Your task to perform on an android device: turn on improve location accuracy Image 0: 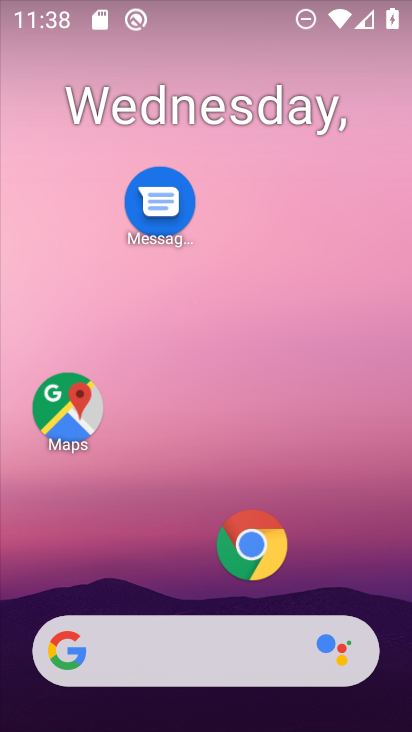
Step 0: drag from (195, 578) to (198, 237)
Your task to perform on an android device: turn on improve location accuracy Image 1: 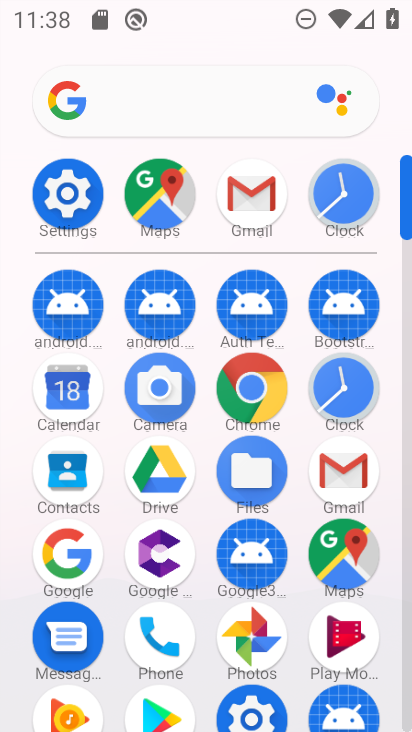
Step 1: click (86, 200)
Your task to perform on an android device: turn on improve location accuracy Image 2: 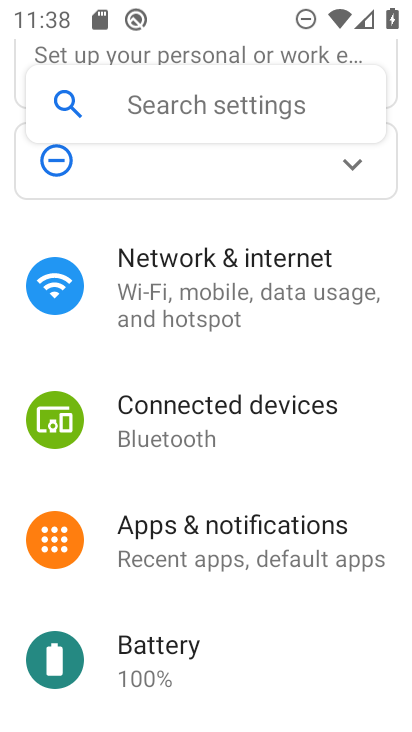
Step 2: drag from (246, 605) to (232, 361)
Your task to perform on an android device: turn on improve location accuracy Image 3: 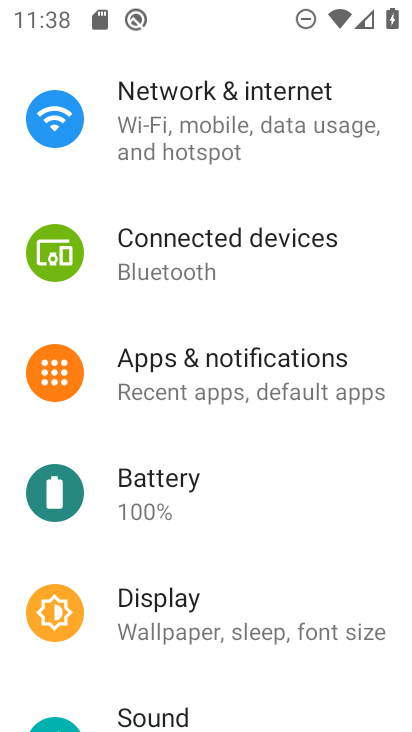
Step 3: drag from (226, 632) to (233, 472)
Your task to perform on an android device: turn on improve location accuracy Image 4: 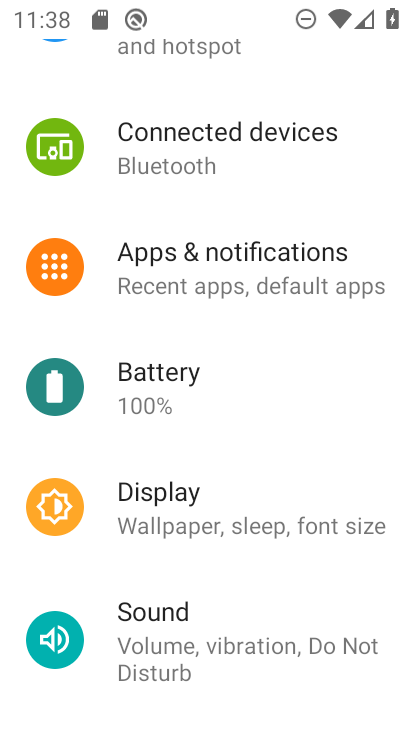
Step 4: drag from (235, 632) to (244, 411)
Your task to perform on an android device: turn on improve location accuracy Image 5: 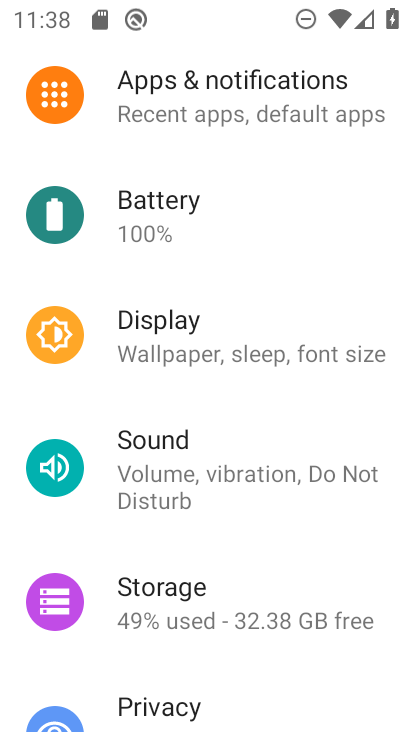
Step 5: drag from (241, 592) to (265, 372)
Your task to perform on an android device: turn on improve location accuracy Image 6: 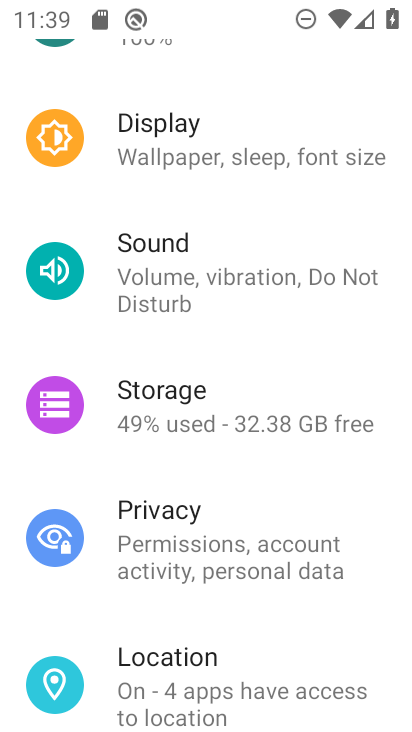
Step 6: click (216, 671)
Your task to perform on an android device: turn on improve location accuracy Image 7: 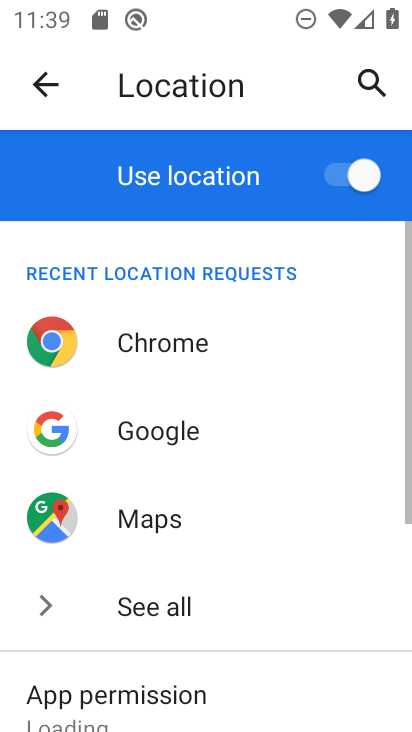
Step 7: drag from (215, 662) to (267, 420)
Your task to perform on an android device: turn on improve location accuracy Image 8: 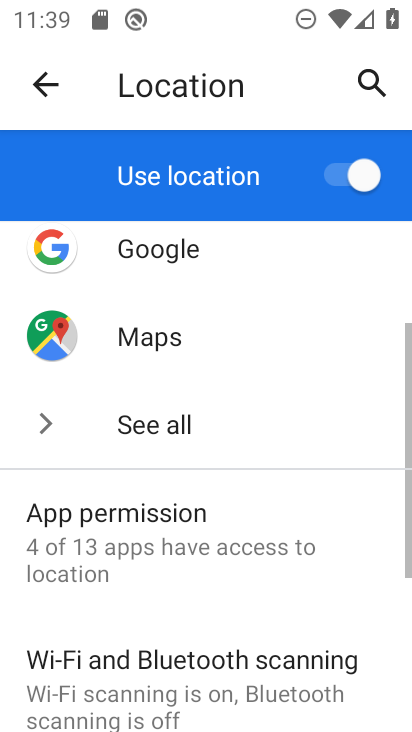
Step 8: drag from (266, 635) to (294, 401)
Your task to perform on an android device: turn on improve location accuracy Image 9: 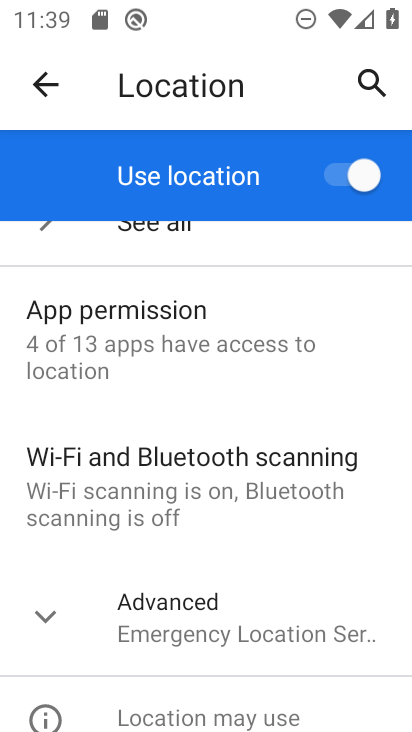
Step 9: click (262, 614)
Your task to perform on an android device: turn on improve location accuracy Image 10: 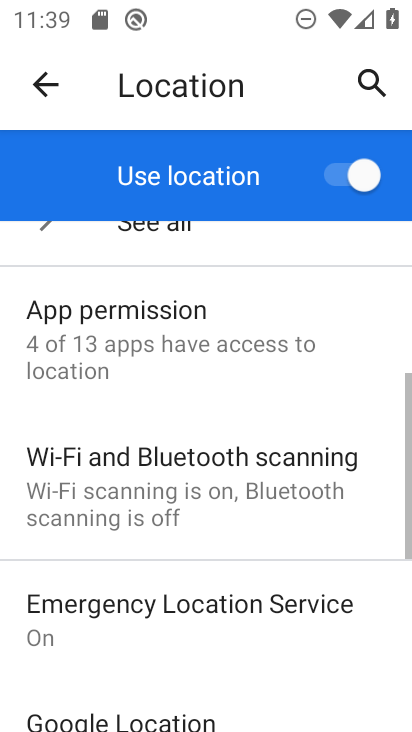
Step 10: drag from (266, 647) to (301, 393)
Your task to perform on an android device: turn on improve location accuracy Image 11: 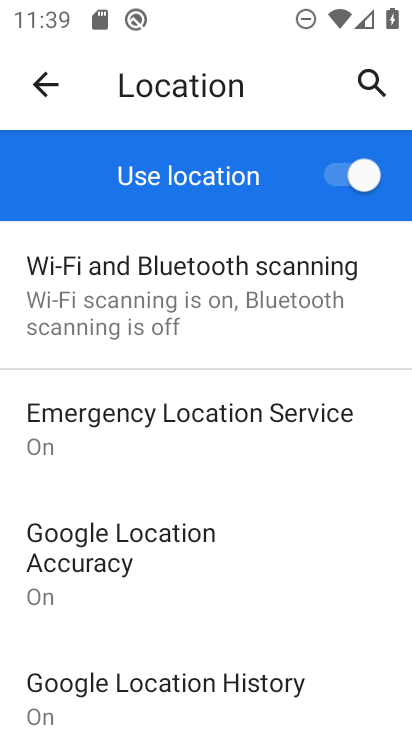
Step 11: drag from (211, 594) to (217, 518)
Your task to perform on an android device: turn on improve location accuracy Image 12: 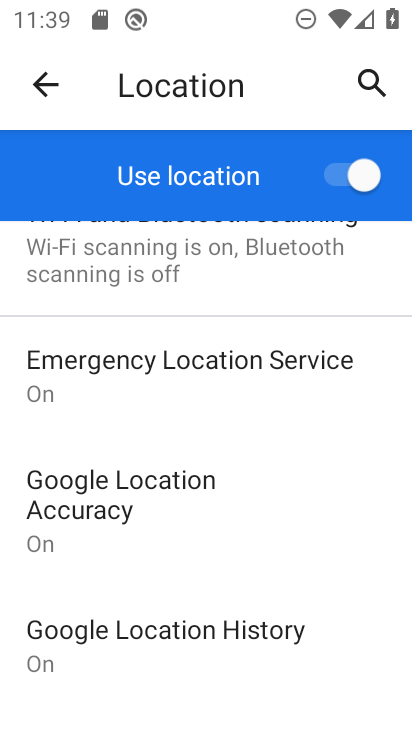
Step 12: click (198, 506)
Your task to perform on an android device: turn on improve location accuracy Image 13: 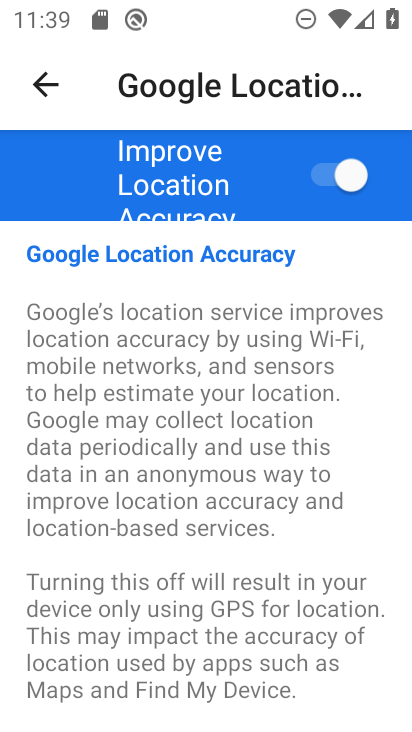
Step 13: task complete